Your task to perform on an android device: Go to Google Image 0: 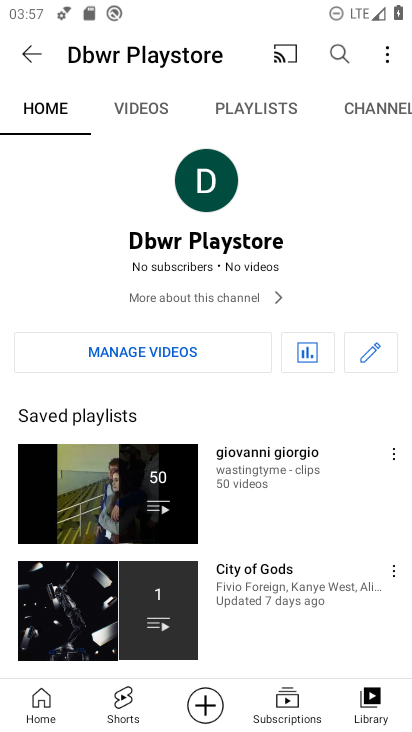
Step 0: press home button
Your task to perform on an android device: Go to Google Image 1: 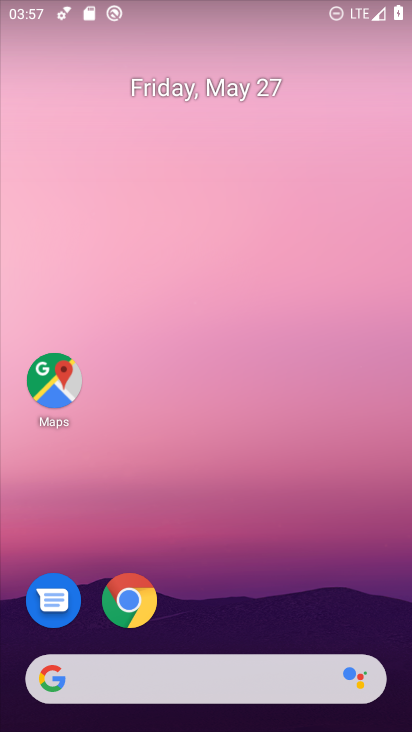
Step 1: drag from (217, 728) to (198, 223)
Your task to perform on an android device: Go to Google Image 2: 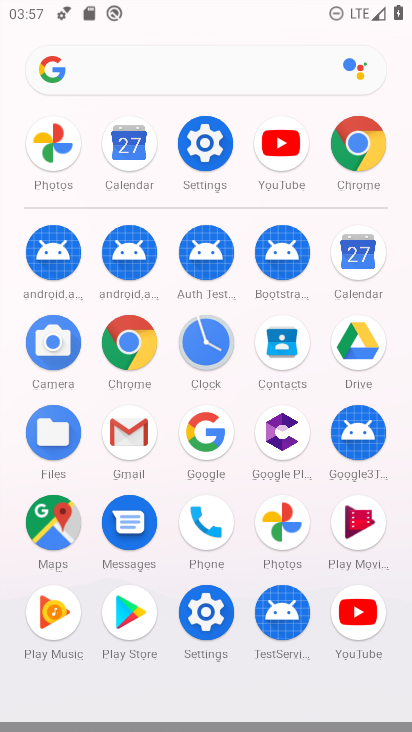
Step 2: click (193, 424)
Your task to perform on an android device: Go to Google Image 3: 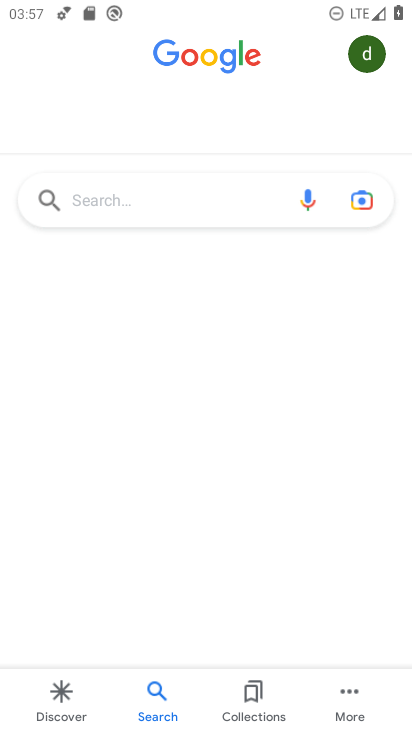
Step 3: task complete